Your task to perform on an android device: Go to Google Image 0: 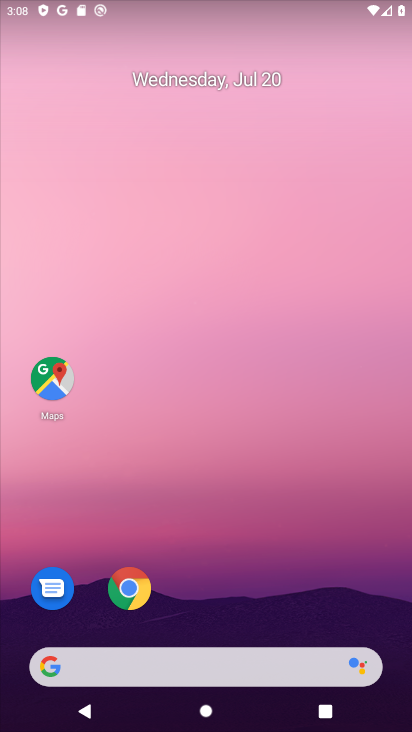
Step 0: click (141, 662)
Your task to perform on an android device: Go to Google Image 1: 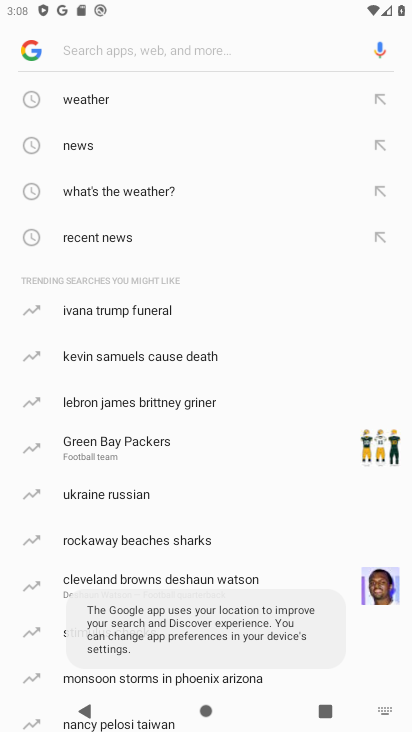
Step 1: task complete